Your task to perform on an android device: Go to Google Image 0: 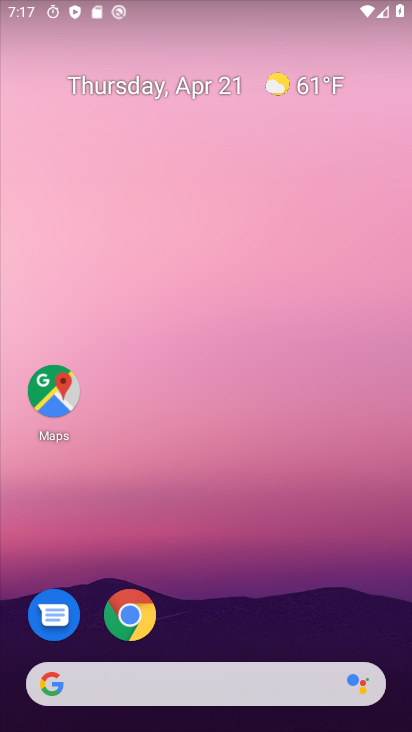
Step 0: drag from (257, 568) to (409, 199)
Your task to perform on an android device: Go to Google Image 1: 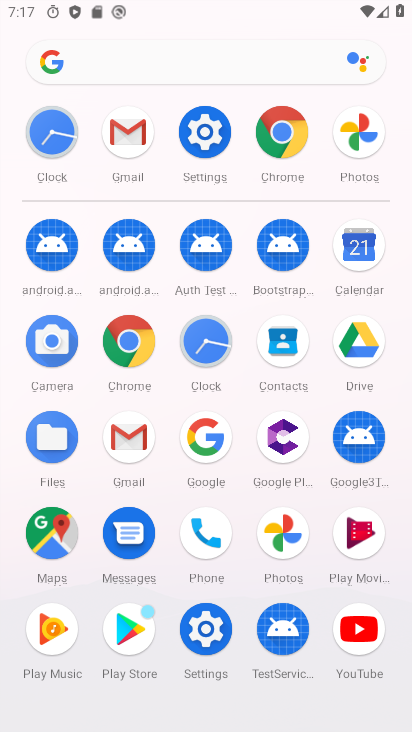
Step 1: click (239, 421)
Your task to perform on an android device: Go to Google Image 2: 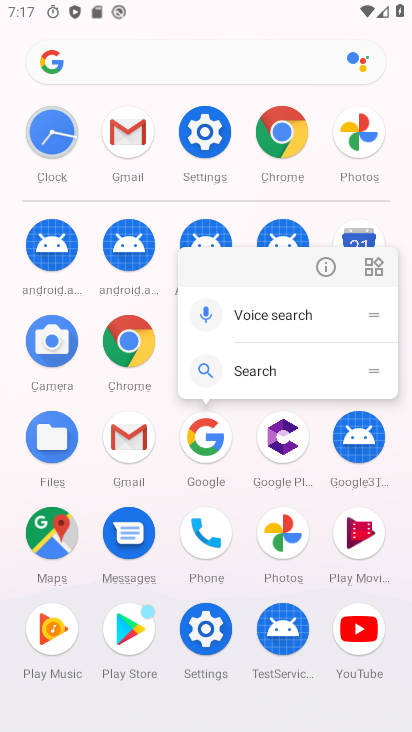
Step 2: click (317, 270)
Your task to perform on an android device: Go to Google Image 3: 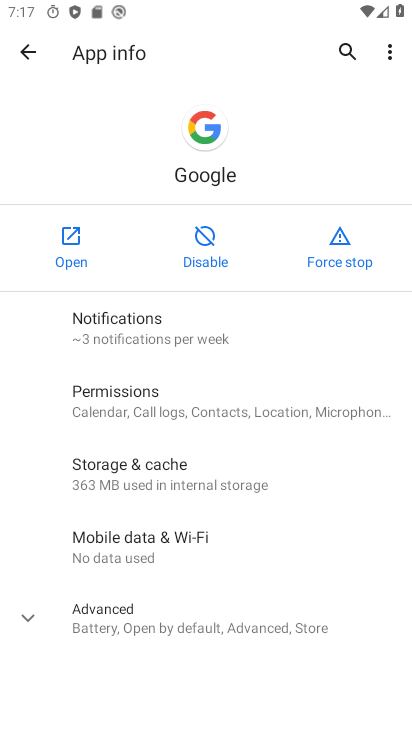
Step 3: click (94, 242)
Your task to perform on an android device: Go to Google Image 4: 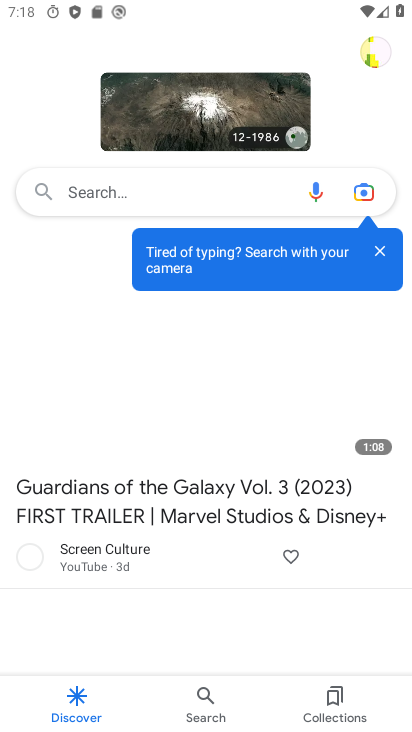
Step 4: task complete